Your task to perform on an android device: delete the emails in spam in the gmail app Image 0: 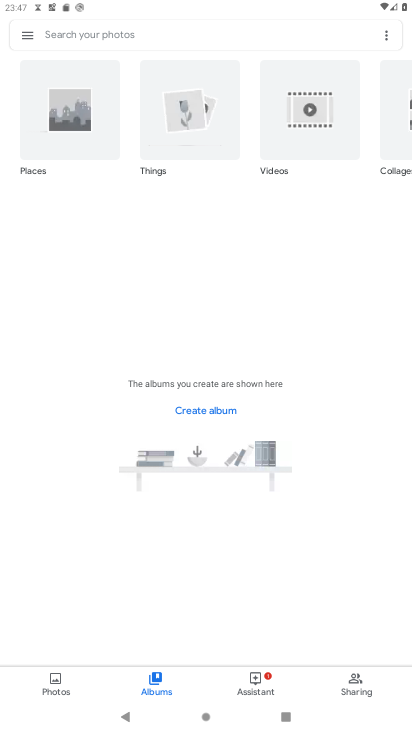
Step 0: press home button
Your task to perform on an android device: delete the emails in spam in the gmail app Image 1: 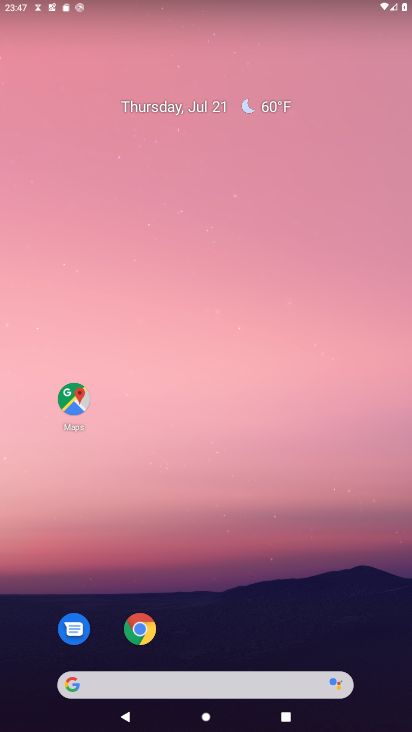
Step 1: drag from (263, 603) to (261, 139)
Your task to perform on an android device: delete the emails in spam in the gmail app Image 2: 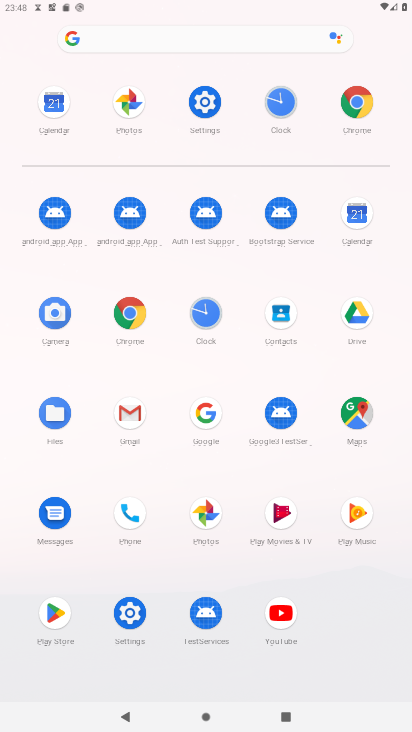
Step 2: click (128, 408)
Your task to perform on an android device: delete the emails in spam in the gmail app Image 3: 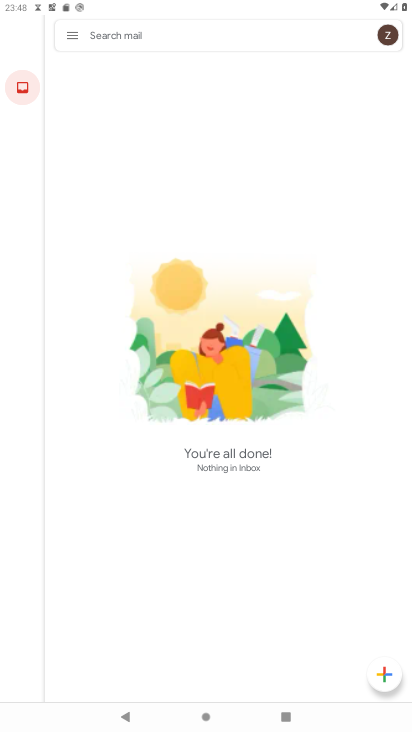
Step 3: click (71, 33)
Your task to perform on an android device: delete the emails in spam in the gmail app Image 4: 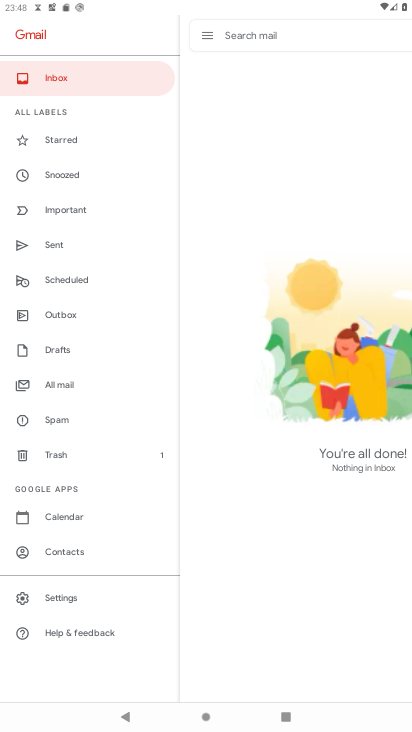
Step 4: click (65, 411)
Your task to perform on an android device: delete the emails in spam in the gmail app Image 5: 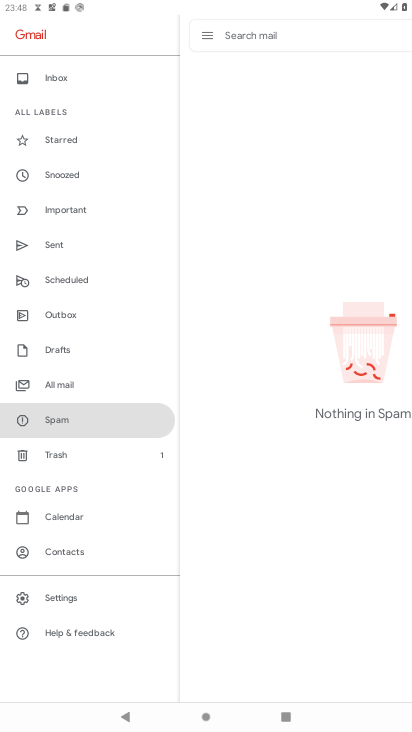
Step 5: task complete